Your task to perform on an android device: What's the weather like in Johannesburg? Image 0: 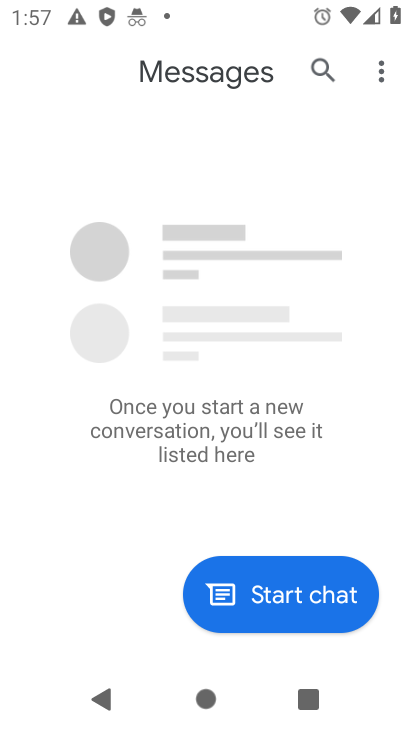
Step 0: press home button
Your task to perform on an android device: What's the weather like in Johannesburg? Image 1: 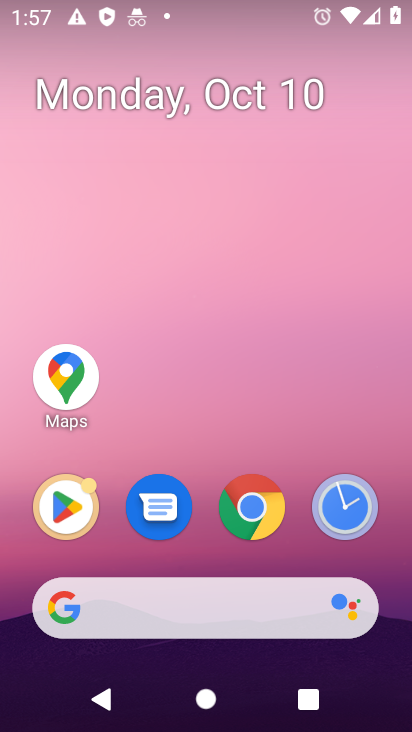
Step 1: click (245, 596)
Your task to perform on an android device: What's the weather like in Johannesburg? Image 2: 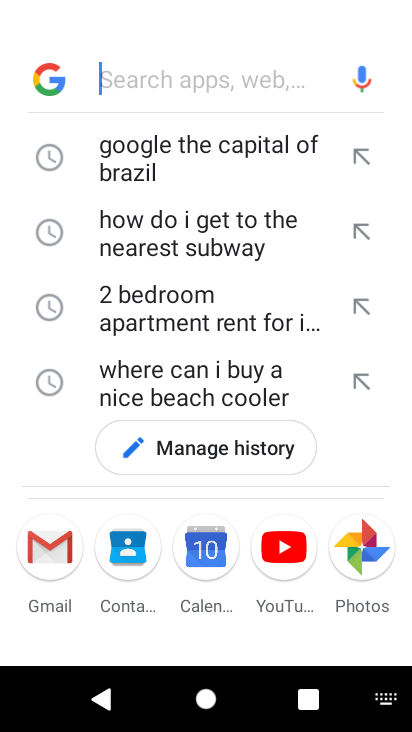
Step 2: type "What's the weather like in Johannesburg?"
Your task to perform on an android device: What's the weather like in Johannesburg? Image 3: 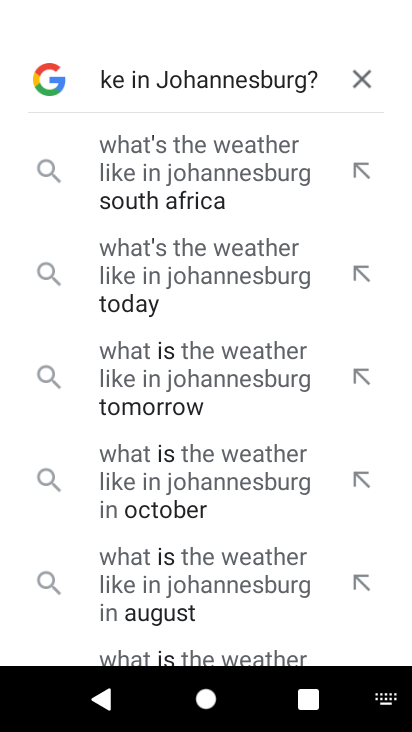
Step 3: press enter
Your task to perform on an android device: What's the weather like in Johannesburg? Image 4: 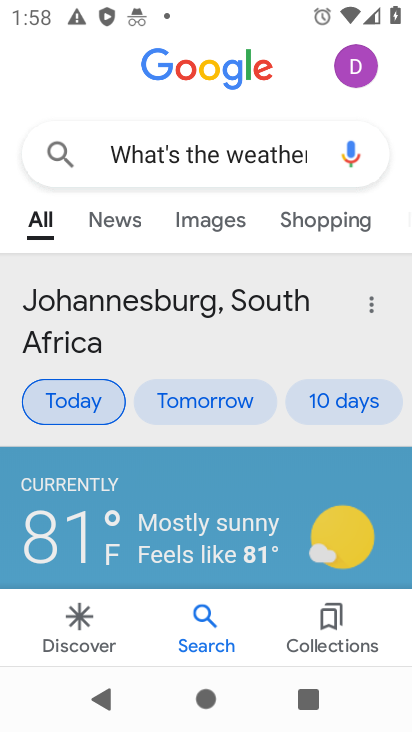
Step 4: task complete